Your task to perform on an android device: open chrome privacy settings Image 0: 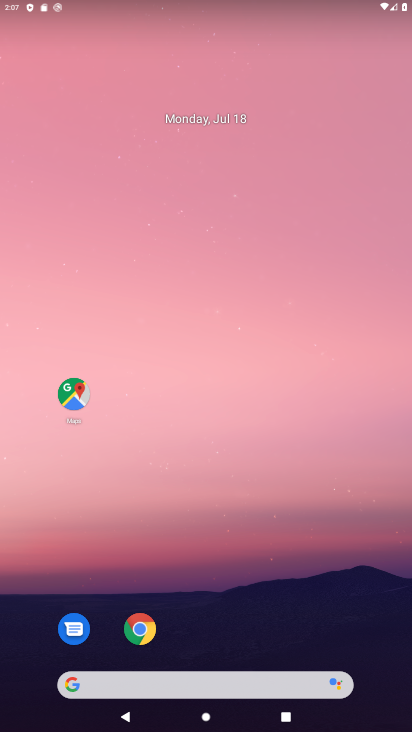
Step 0: click (156, 637)
Your task to perform on an android device: open chrome privacy settings Image 1: 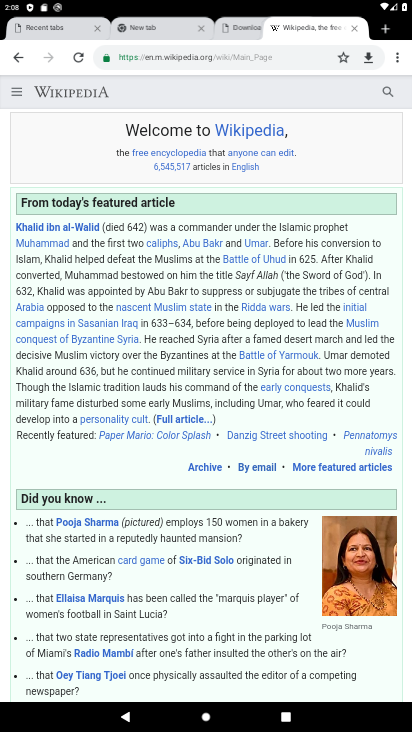
Step 1: click (393, 61)
Your task to perform on an android device: open chrome privacy settings Image 2: 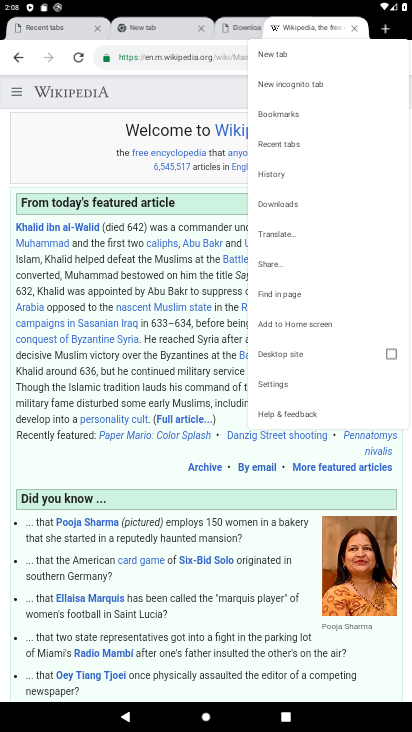
Step 2: click (280, 386)
Your task to perform on an android device: open chrome privacy settings Image 3: 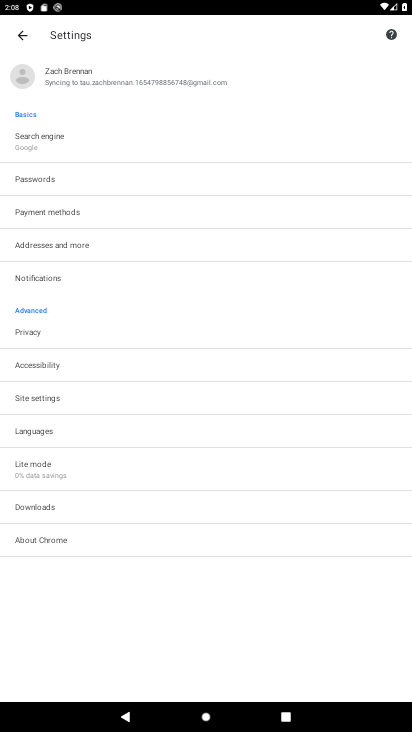
Step 3: click (47, 333)
Your task to perform on an android device: open chrome privacy settings Image 4: 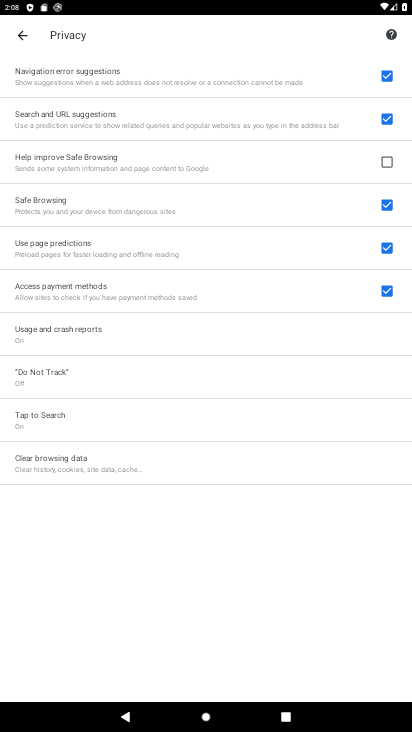
Step 4: task complete